Your task to perform on an android device: toggle improve location accuracy Image 0: 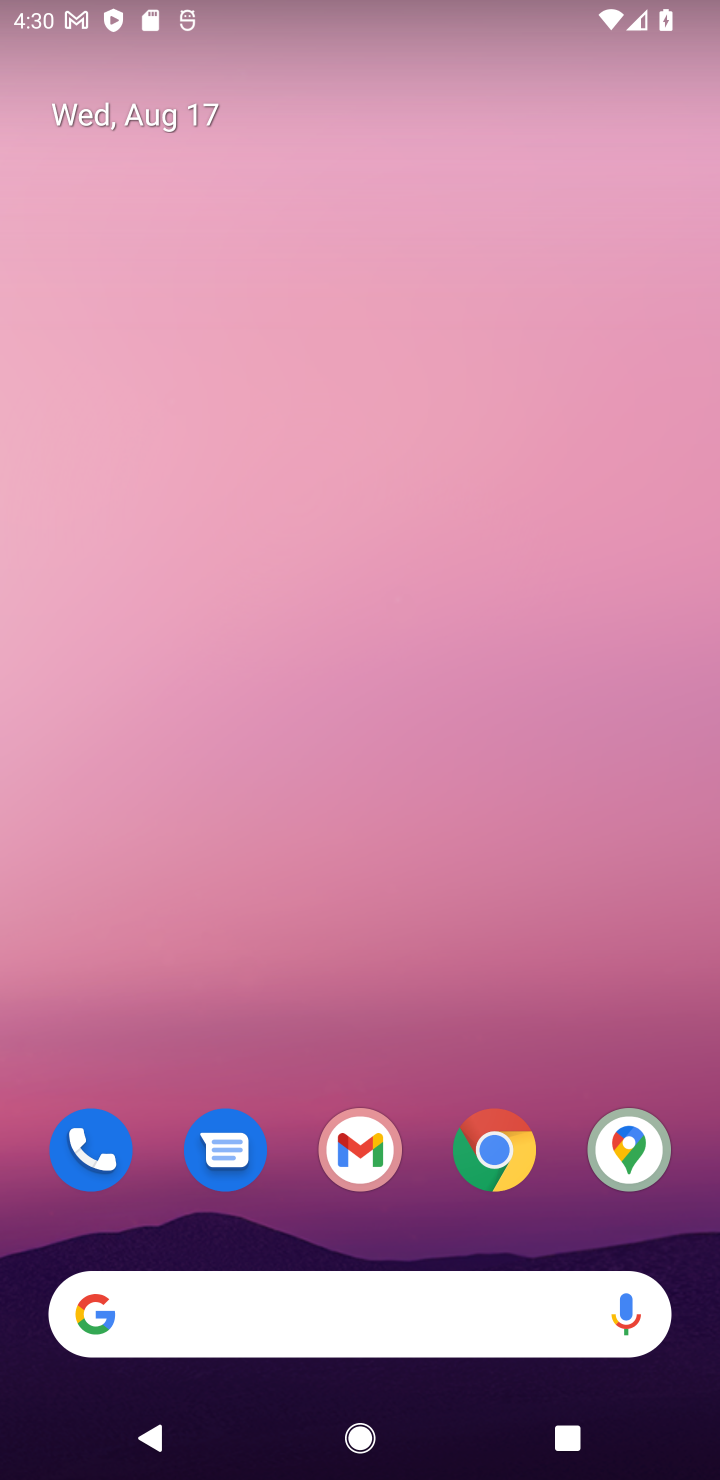
Step 0: drag from (671, 1201) to (397, 11)
Your task to perform on an android device: toggle improve location accuracy Image 1: 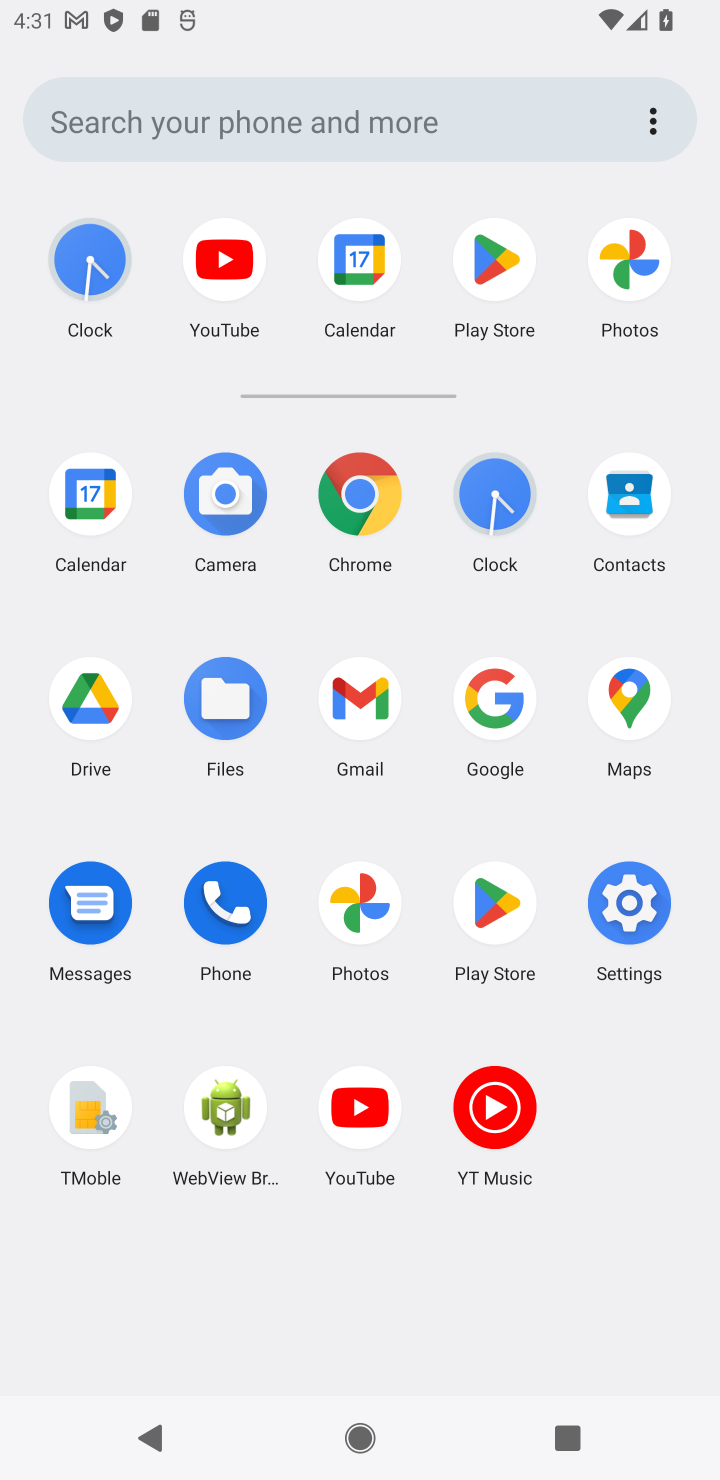
Step 1: click (626, 916)
Your task to perform on an android device: toggle improve location accuracy Image 2: 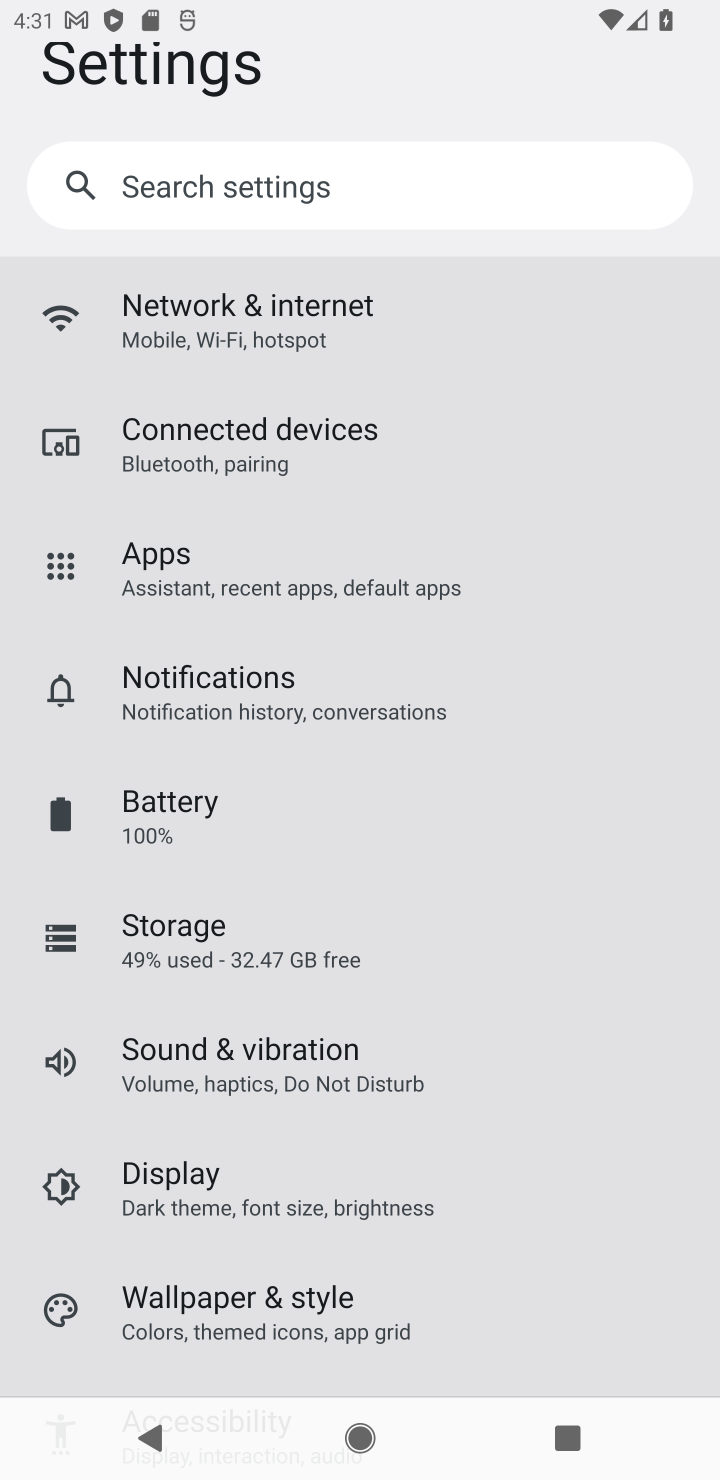
Step 2: drag from (312, 1274) to (333, 206)
Your task to perform on an android device: toggle improve location accuracy Image 3: 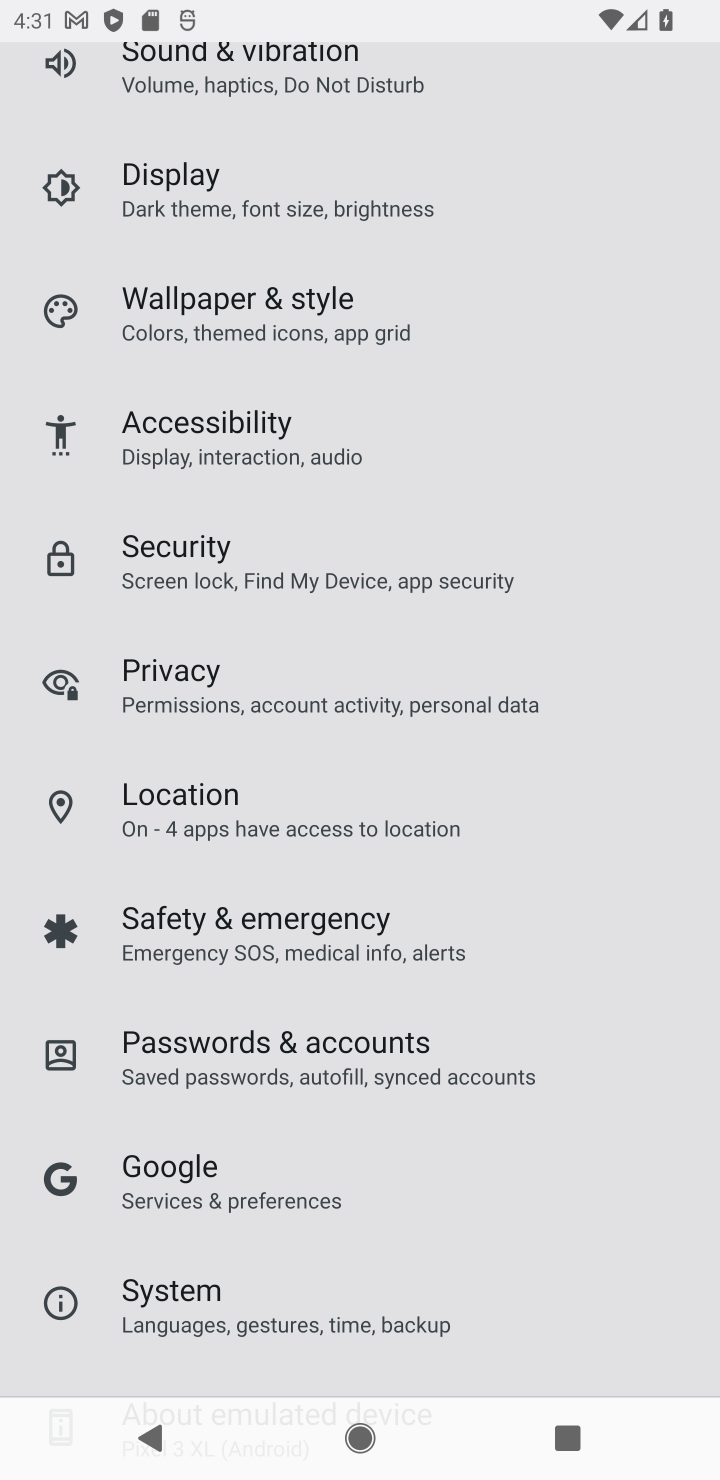
Step 3: click (208, 796)
Your task to perform on an android device: toggle improve location accuracy Image 4: 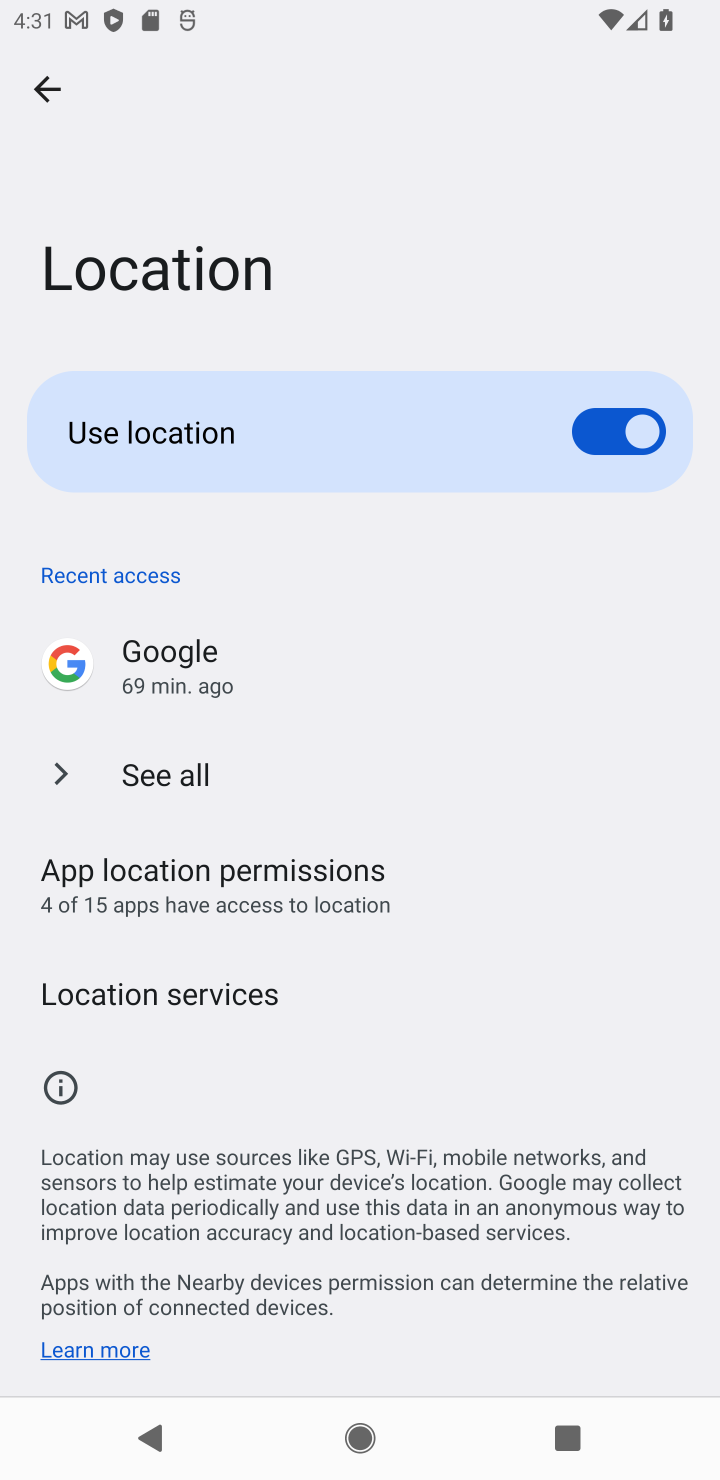
Step 4: click (263, 931)
Your task to perform on an android device: toggle improve location accuracy Image 5: 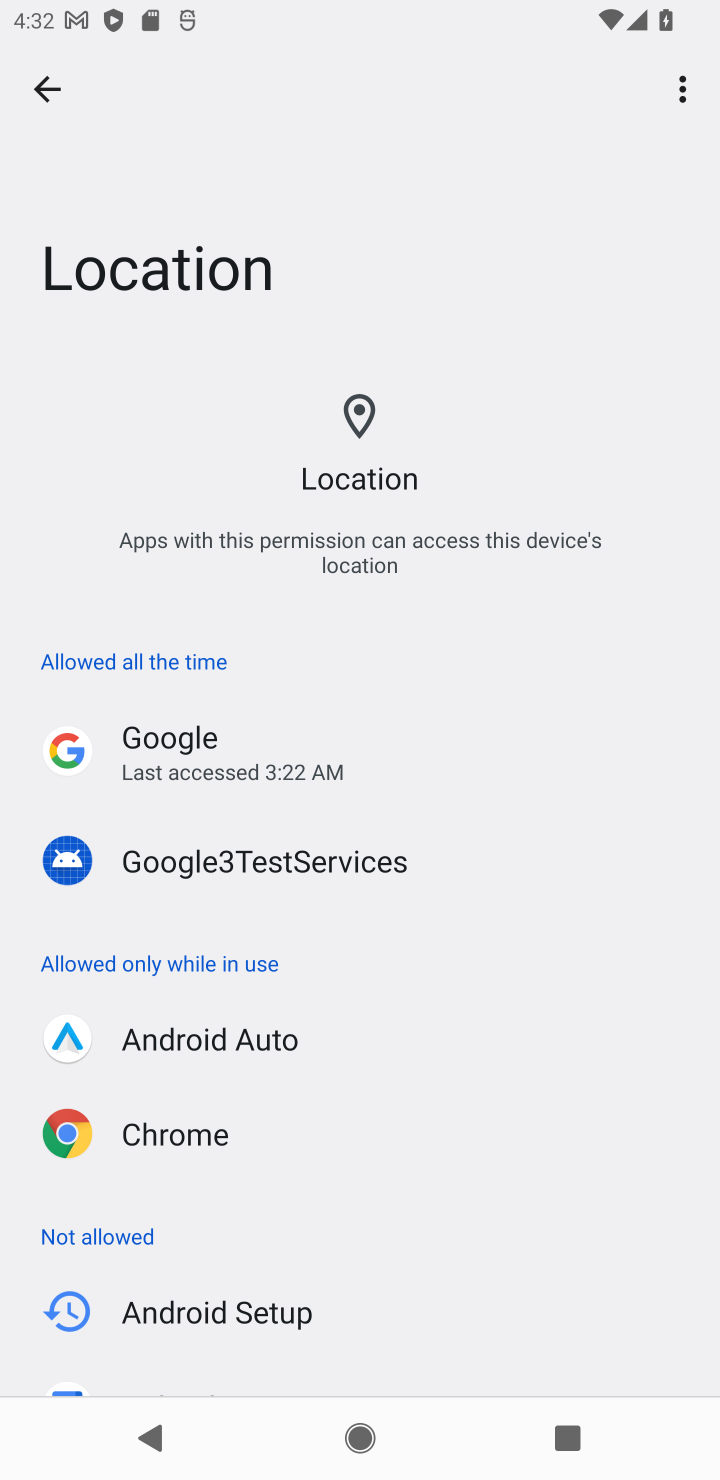
Step 5: task complete